Your task to perform on an android device: toggle pop-ups in chrome Image 0: 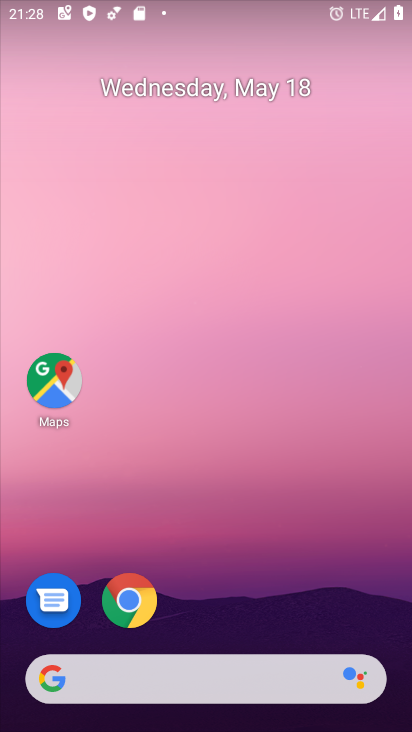
Step 0: click (126, 600)
Your task to perform on an android device: toggle pop-ups in chrome Image 1: 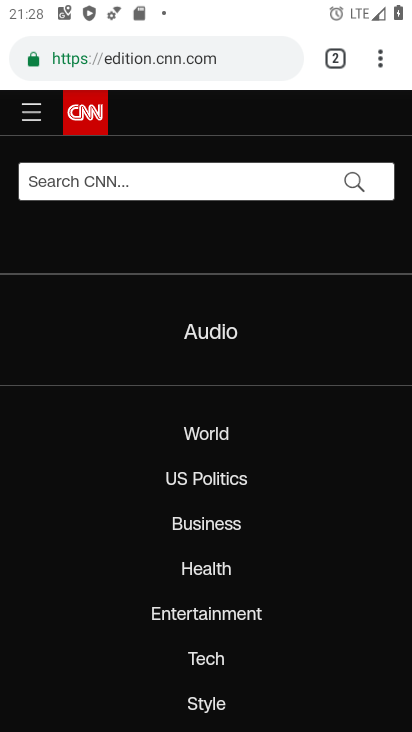
Step 1: click (377, 55)
Your task to perform on an android device: toggle pop-ups in chrome Image 2: 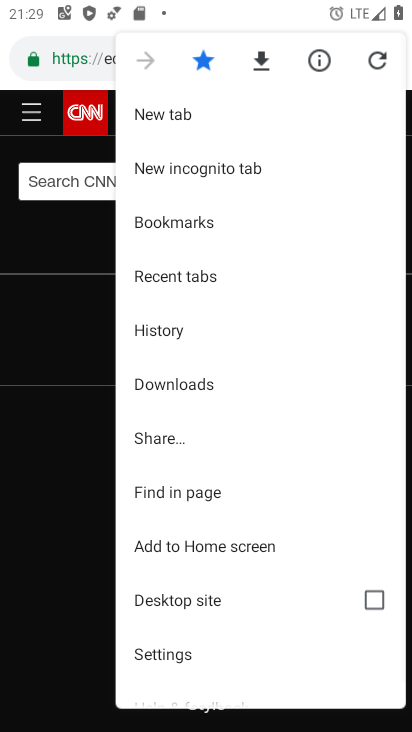
Step 2: click (168, 649)
Your task to perform on an android device: toggle pop-ups in chrome Image 3: 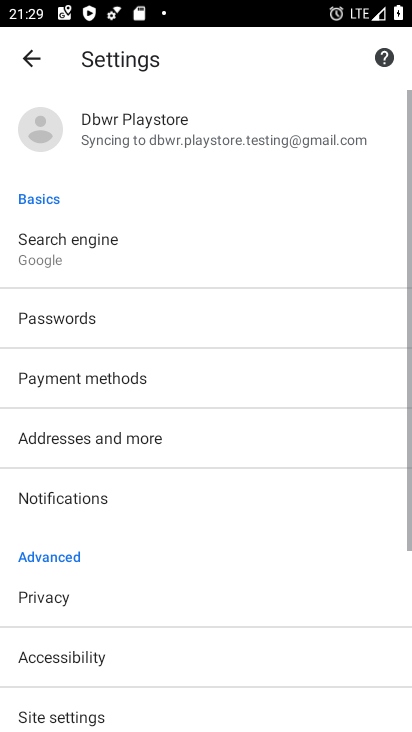
Step 3: drag from (105, 632) to (237, 164)
Your task to perform on an android device: toggle pop-ups in chrome Image 4: 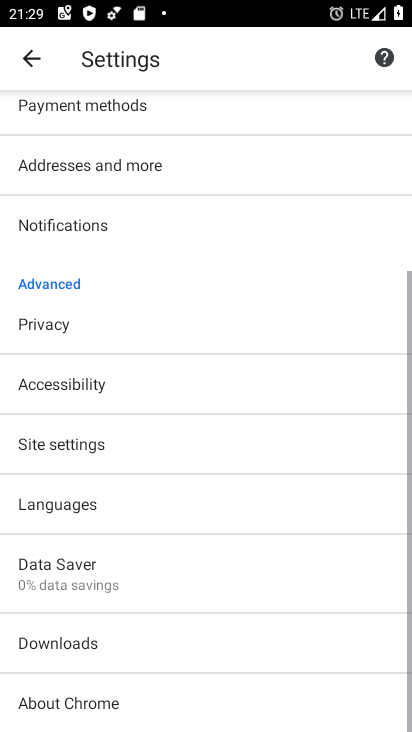
Step 4: click (86, 447)
Your task to perform on an android device: toggle pop-ups in chrome Image 5: 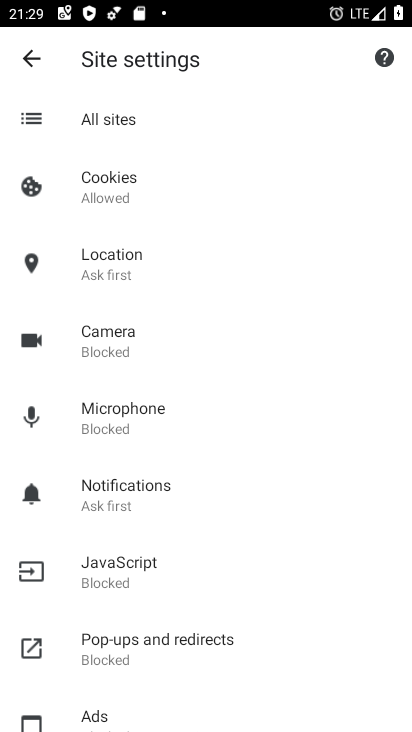
Step 5: click (131, 662)
Your task to perform on an android device: toggle pop-ups in chrome Image 6: 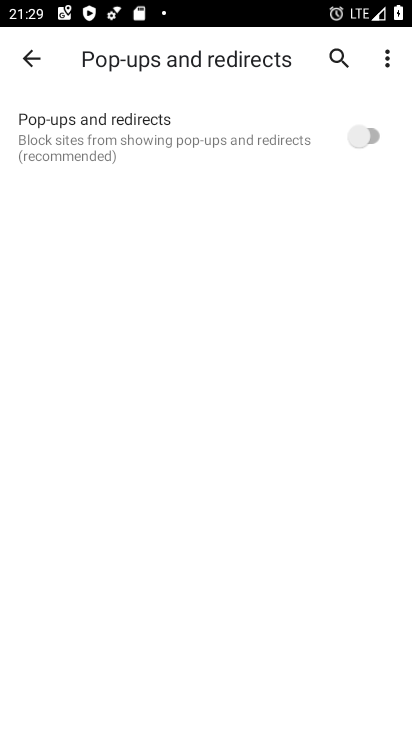
Step 6: click (367, 130)
Your task to perform on an android device: toggle pop-ups in chrome Image 7: 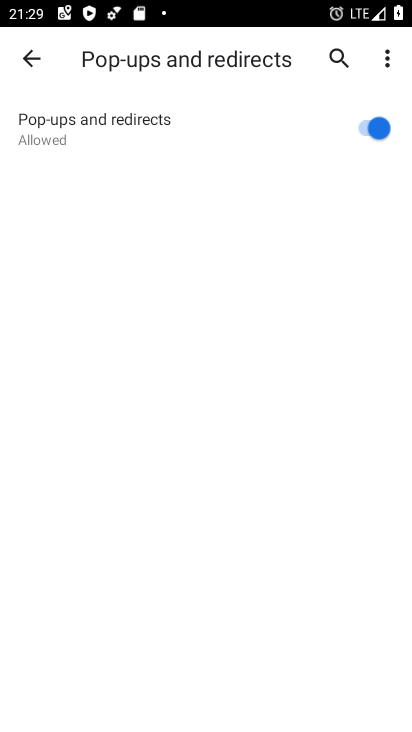
Step 7: task complete